Your task to perform on an android device: change the clock display to digital Image 0: 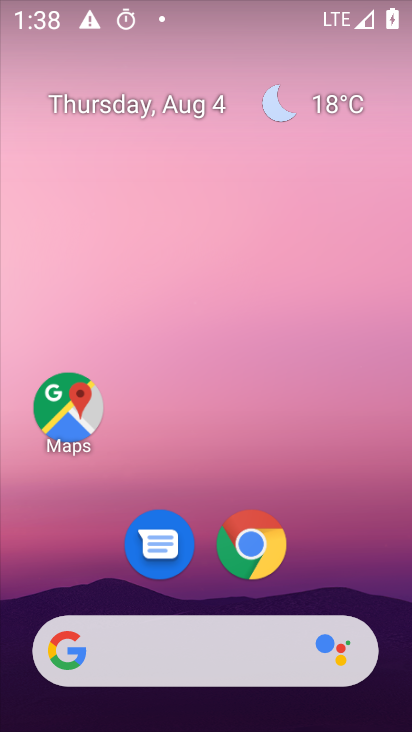
Step 0: drag from (390, 696) to (301, 73)
Your task to perform on an android device: change the clock display to digital Image 1: 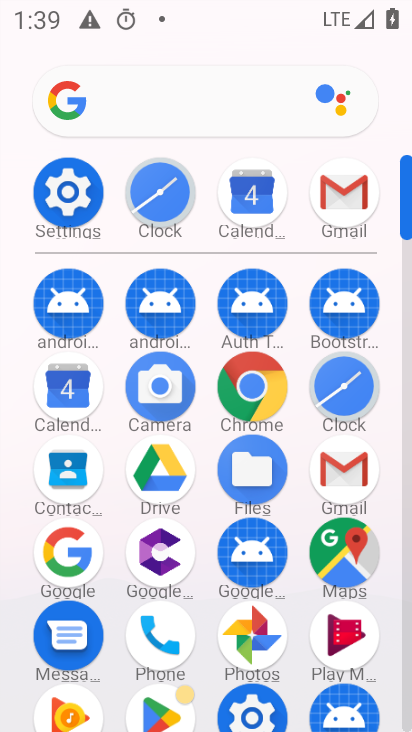
Step 1: click (349, 393)
Your task to perform on an android device: change the clock display to digital Image 2: 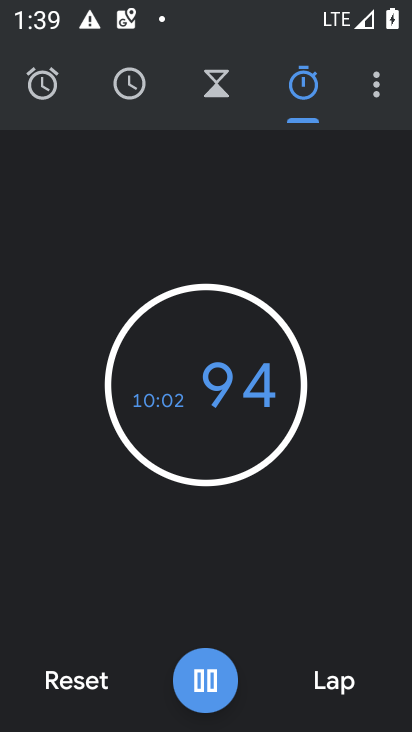
Step 2: click (372, 85)
Your task to perform on an android device: change the clock display to digital Image 3: 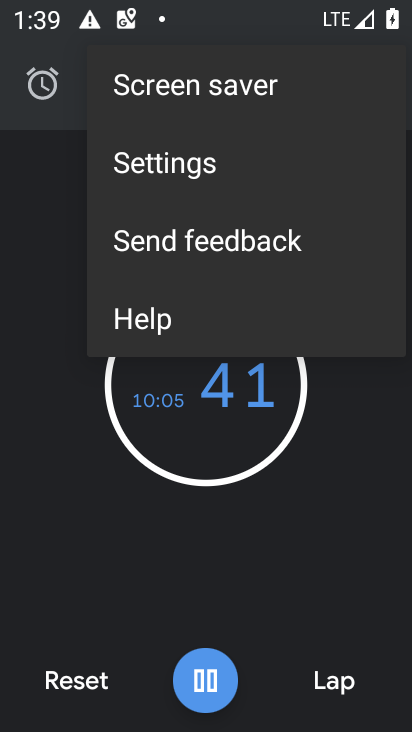
Step 3: click (205, 168)
Your task to perform on an android device: change the clock display to digital Image 4: 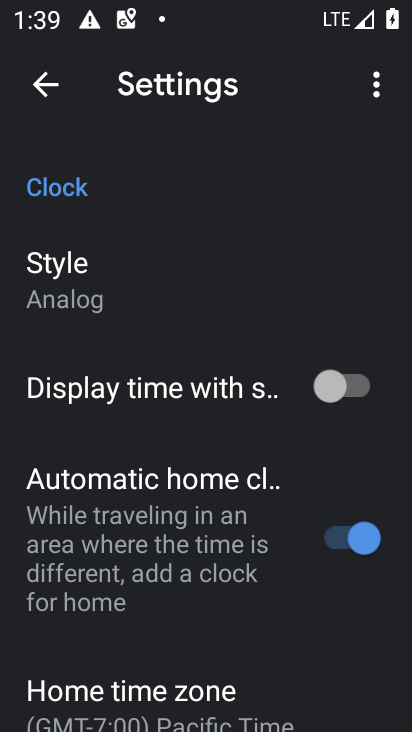
Step 4: click (62, 284)
Your task to perform on an android device: change the clock display to digital Image 5: 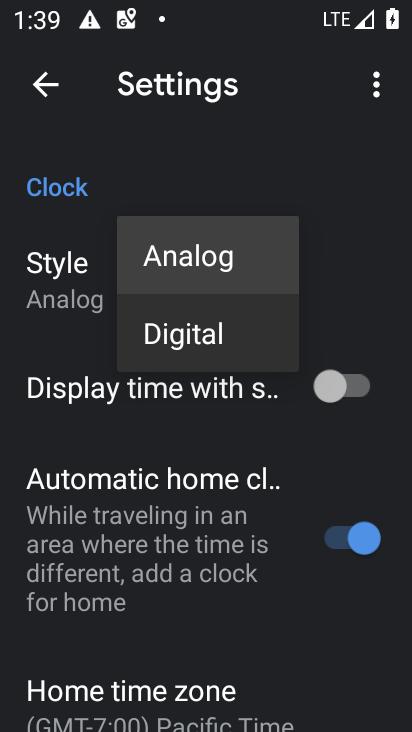
Step 5: click (169, 332)
Your task to perform on an android device: change the clock display to digital Image 6: 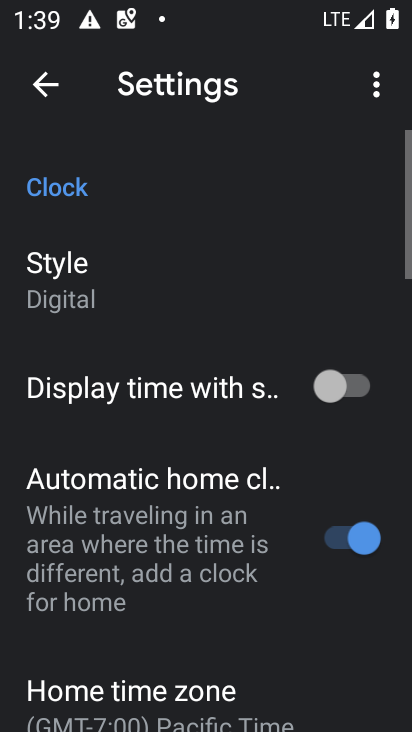
Step 6: task complete